Your task to perform on an android device: Open Youtube and go to the subscriptions tab Image 0: 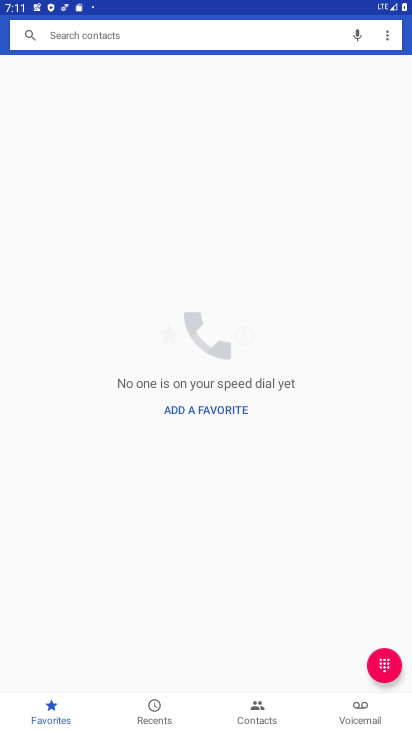
Step 0: press home button
Your task to perform on an android device: Open Youtube and go to the subscriptions tab Image 1: 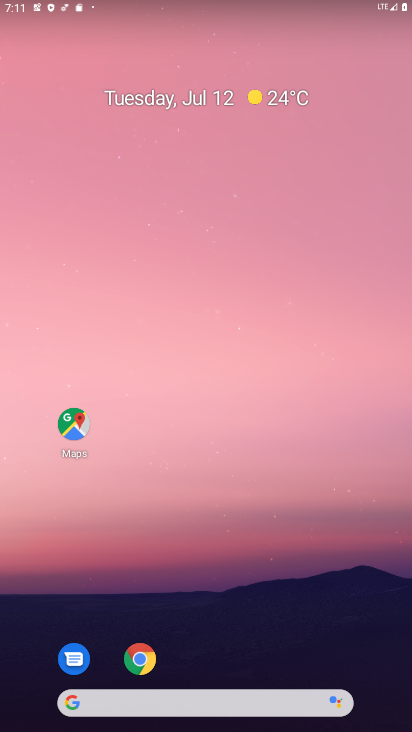
Step 1: drag from (348, 652) to (232, 1)
Your task to perform on an android device: Open Youtube and go to the subscriptions tab Image 2: 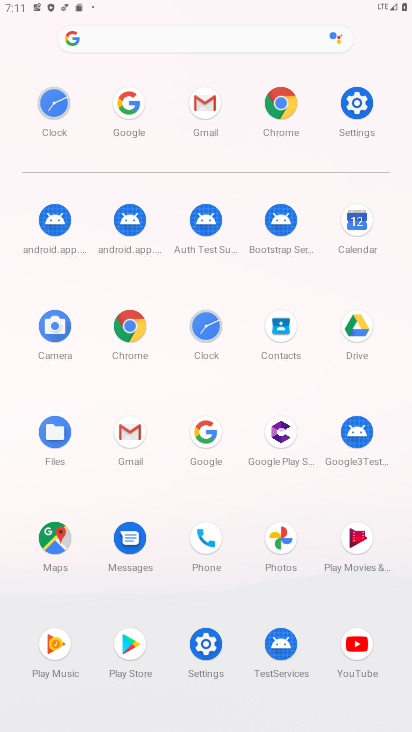
Step 2: click (345, 650)
Your task to perform on an android device: Open Youtube and go to the subscriptions tab Image 3: 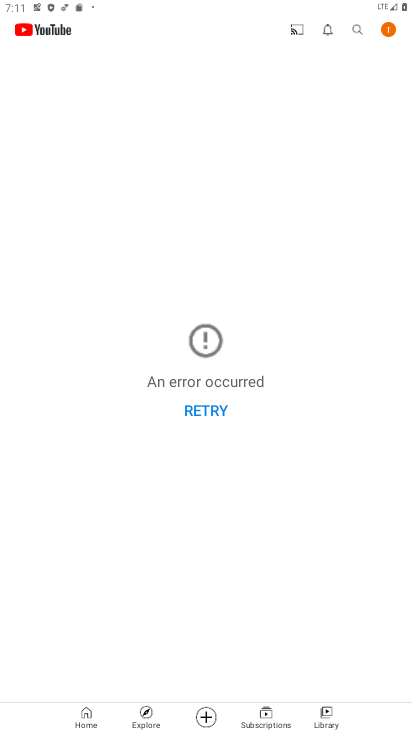
Step 3: click (259, 705)
Your task to perform on an android device: Open Youtube and go to the subscriptions tab Image 4: 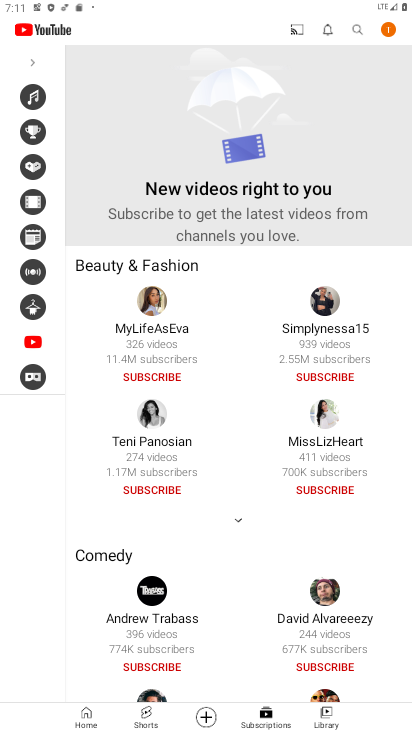
Step 4: task complete